Your task to perform on an android device: toggle show notifications on the lock screen Image 0: 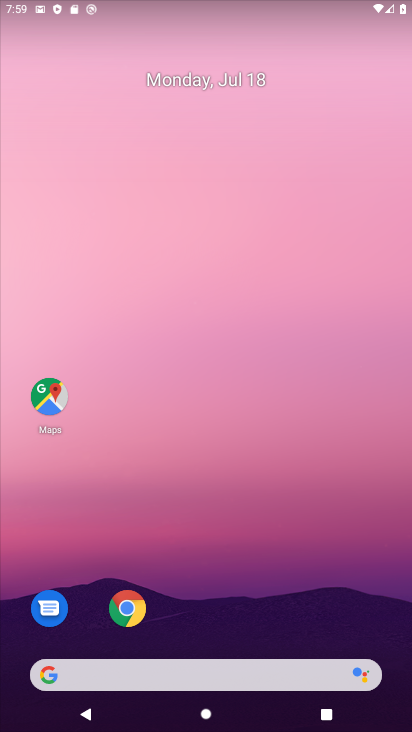
Step 0: drag from (234, 711) to (217, 86)
Your task to perform on an android device: toggle show notifications on the lock screen Image 1: 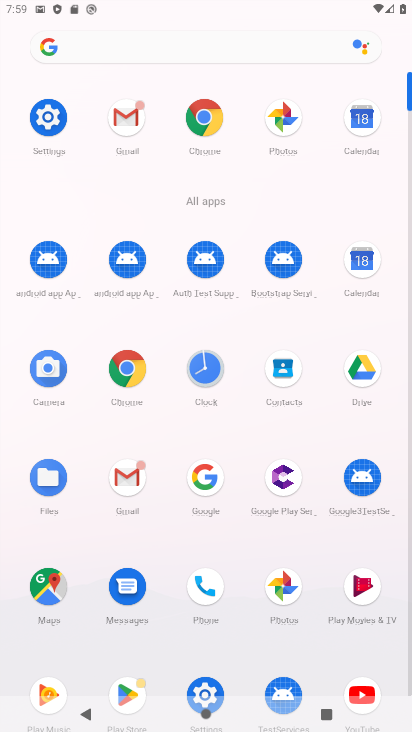
Step 1: click (41, 108)
Your task to perform on an android device: toggle show notifications on the lock screen Image 2: 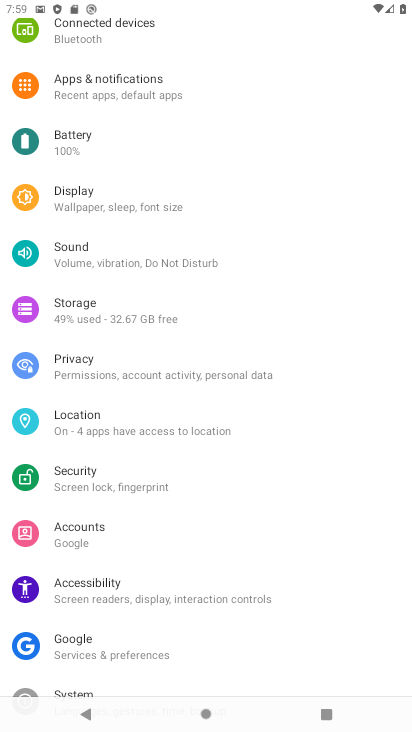
Step 2: click (113, 92)
Your task to perform on an android device: toggle show notifications on the lock screen Image 3: 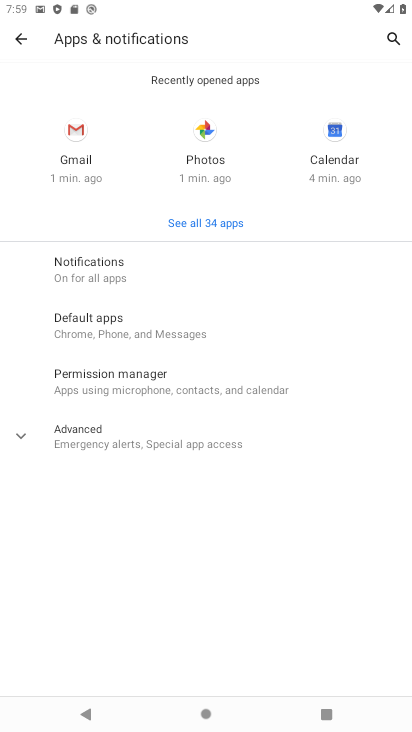
Step 3: click (85, 268)
Your task to perform on an android device: toggle show notifications on the lock screen Image 4: 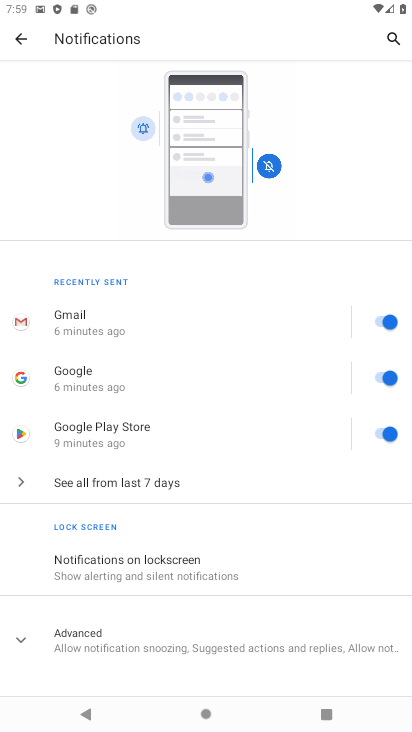
Step 4: click (91, 565)
Your task to perform on an android device: toggle show notifications on the lock screen Image 5: 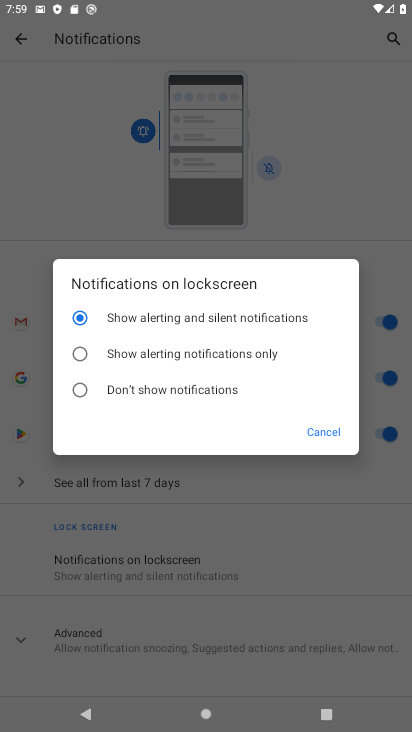
Step 5: click (86, 352)
Your task to perform on an android device: toggle show notifications on the lock screen Image 6: 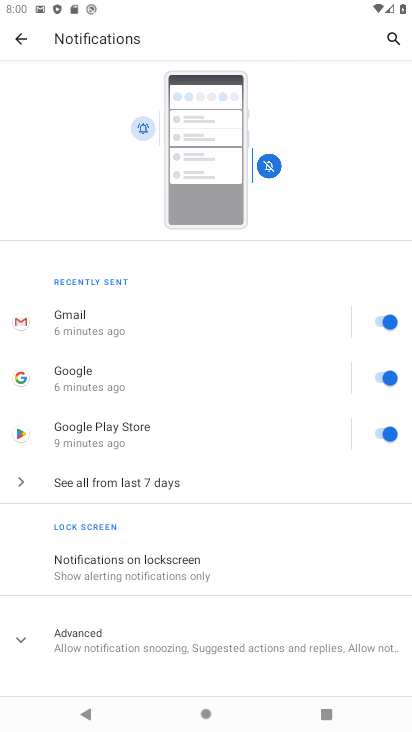
Step 6: task complete